Your task to perform on an android device: install app "Paramount+ | Peak Streaming" Image 0: 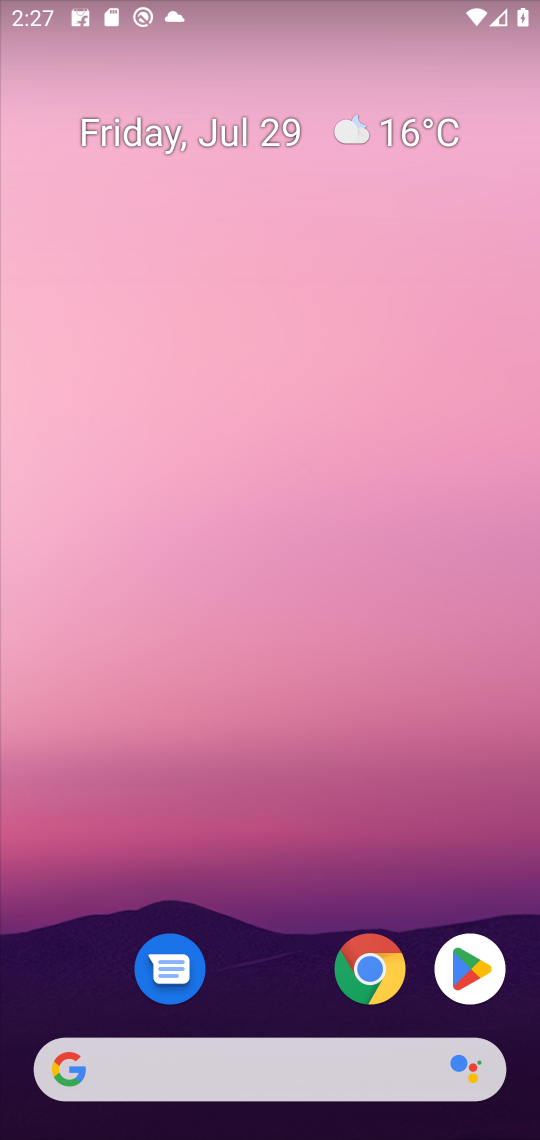
Step 0: press home button
Your task to perform on an android device: install app "Paramount+ | Peak Streaming" Image 1: 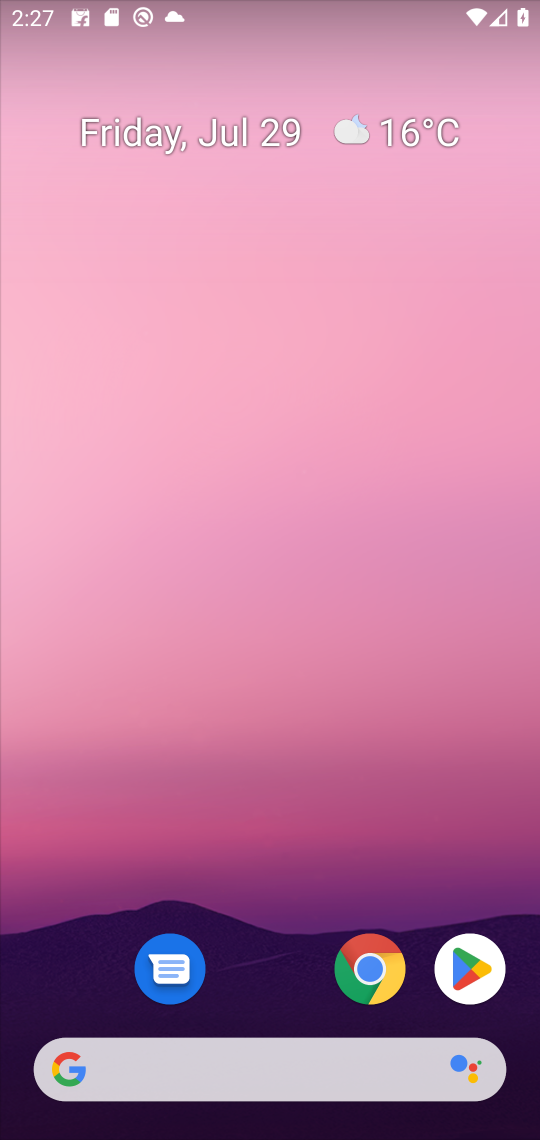
Step 1: click (460, 961)
Your task to perform on an android device: install app "Paramount+ | Peak Streaming" Image 2: 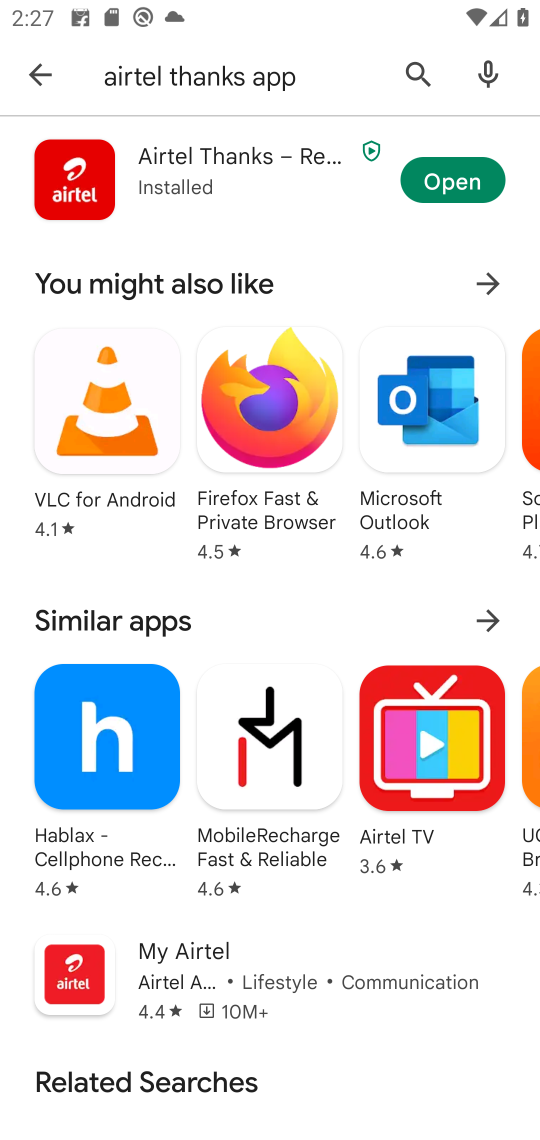
Step 2: click (427, 74)
Your task to perform on an android device: install app "Paramount+ | Peak Streaming" Image 3: 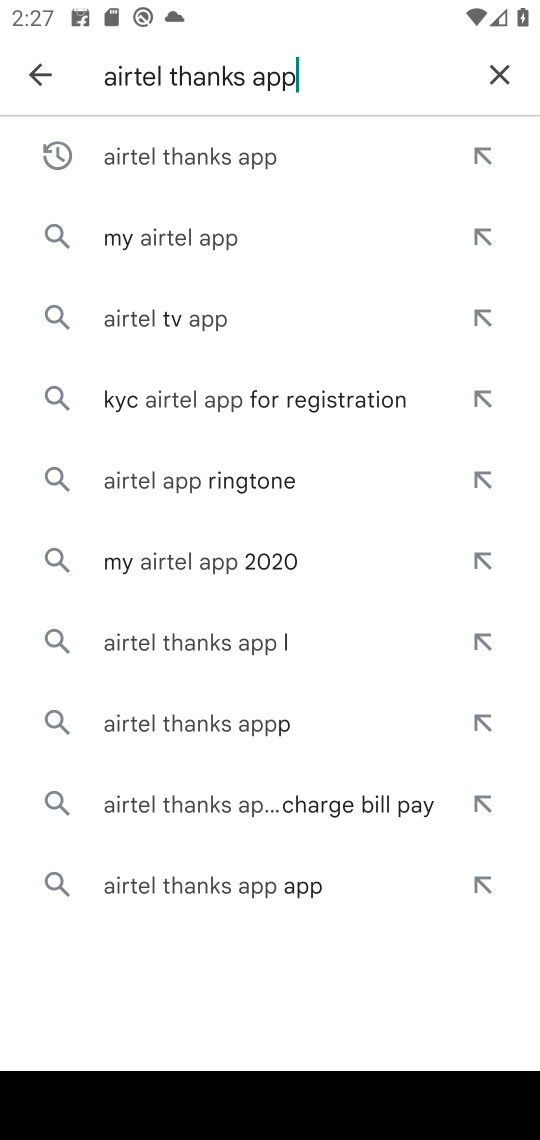
Step 3: click (508, 72)
Your task to perform on an android device: install app "Paramount+ | Peak Streaming" Image 4: 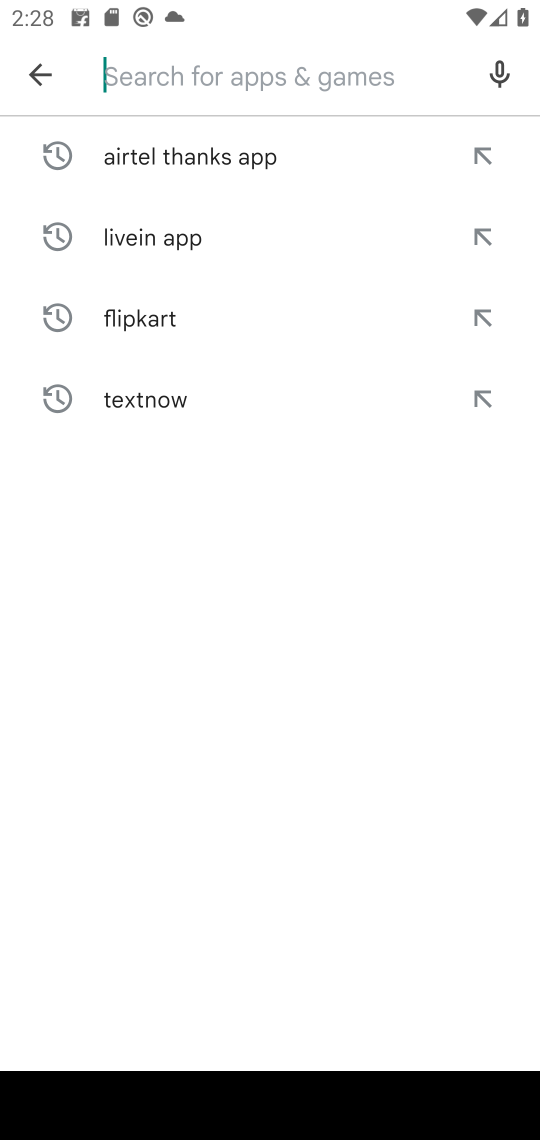
Step 4: type "paramount"
Your task to perform on an android device: install app "Paramount+ | Peak Streaming" Image 5: 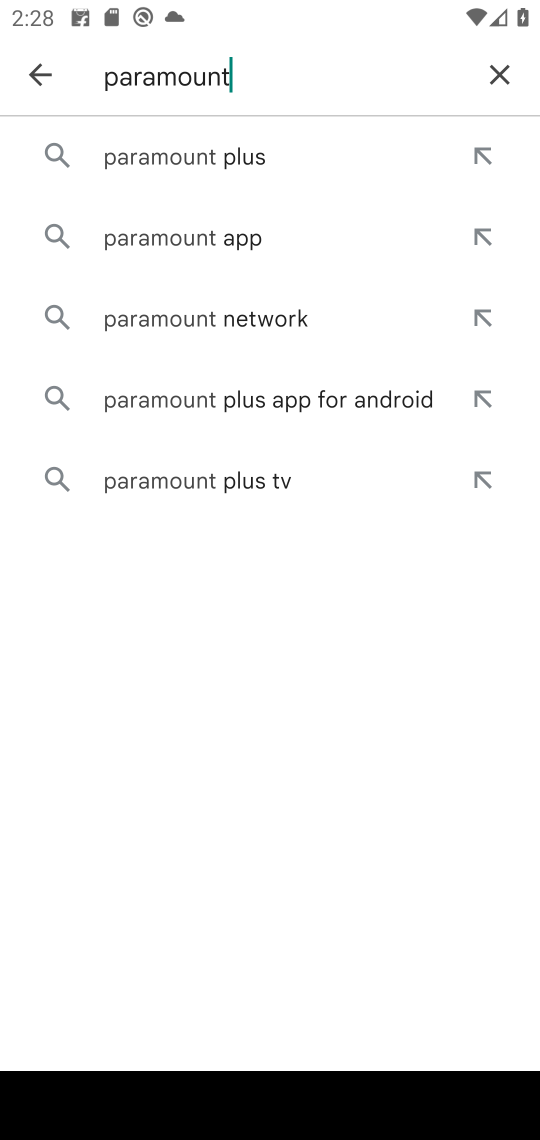
Step 5: click (206, 243)
Your task to perform on an android device: install app "Paramount+ | Peak Streaming" Image 6: 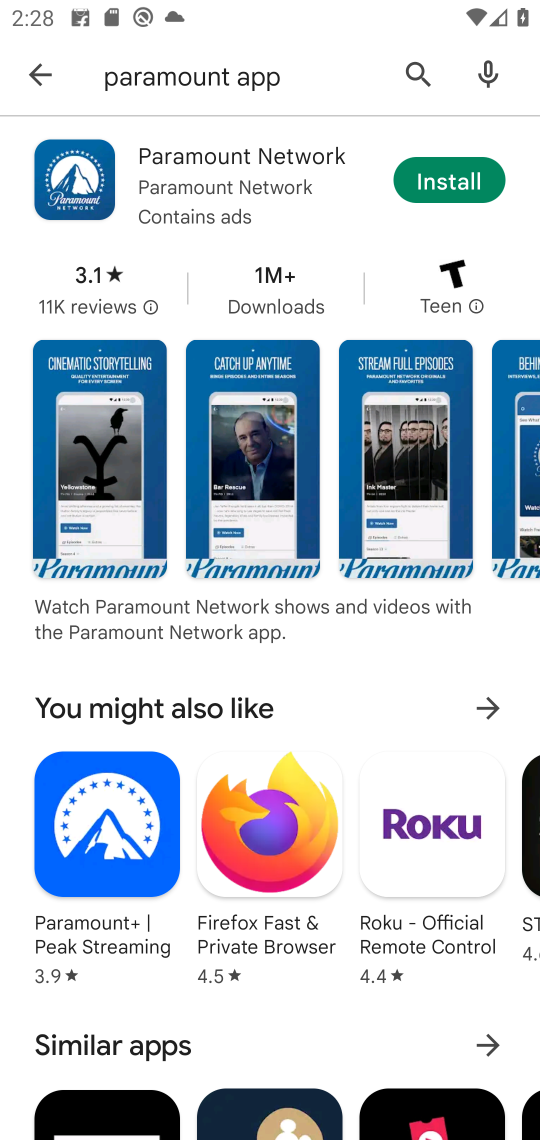
Step 6: click (462, 175)
Your task to perform on an android device: install app "Paramount+ | Peak Streaming" Image 7: 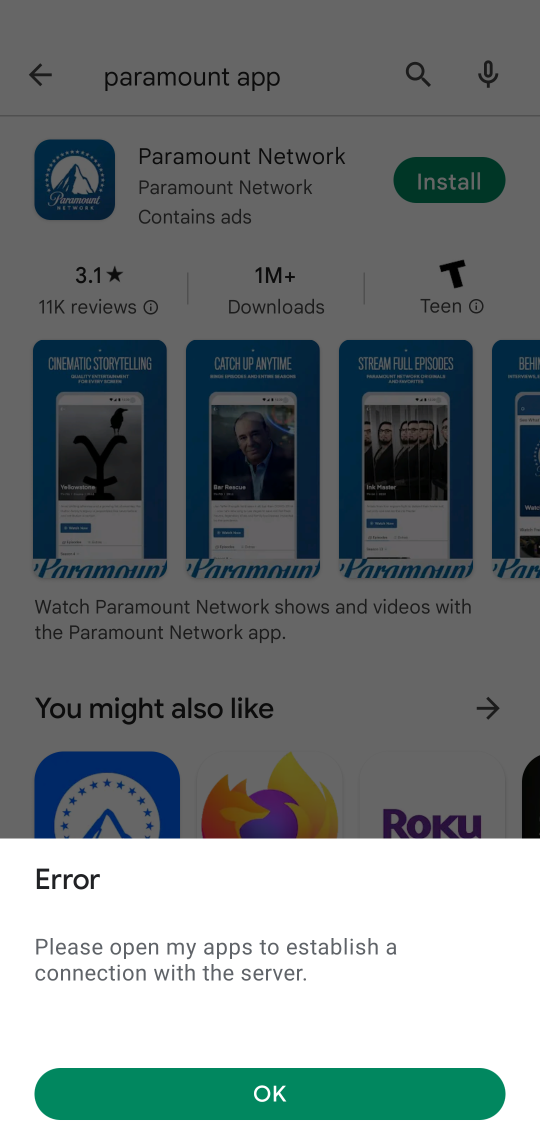
Step 7: task complete